Your task to perform on an android device: Show me popular videos on Youtube Image 0: 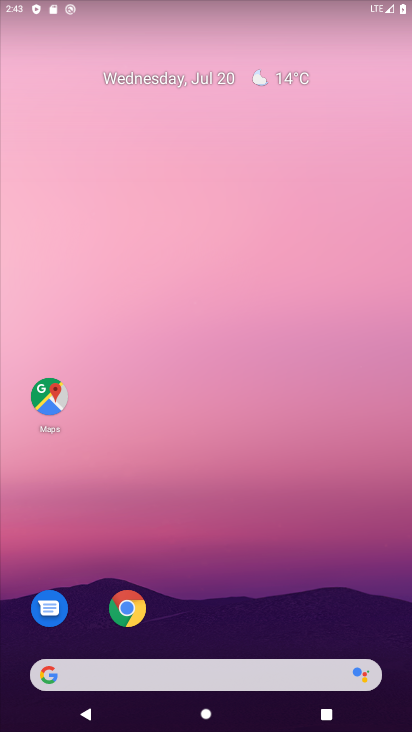
Step 0: drag from (222, 643) to (136, 115)
Your task to perform on an android device: Show me popular videos on Youtube Image 1: 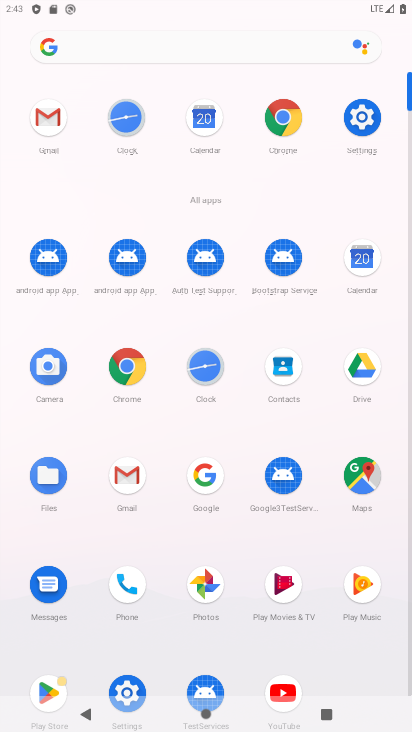
Step 1: click (275, 680)
Your task to perform on an android device: Show me popular videos on Youtube Image 2: 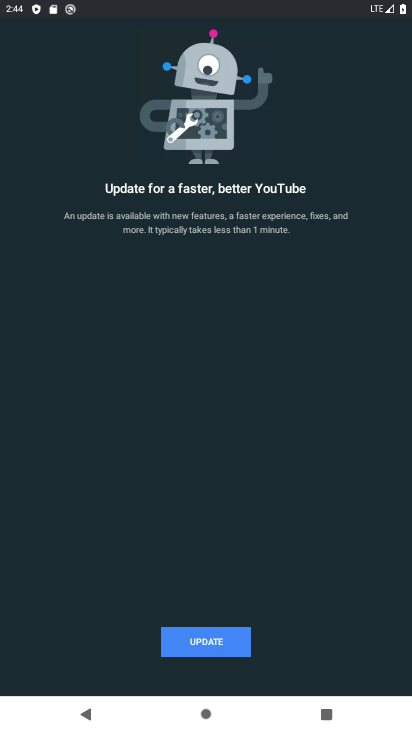
Step 2: click (176, 641)
Your task to perform on an android device: Show me popular videos on Youtube Image 3: 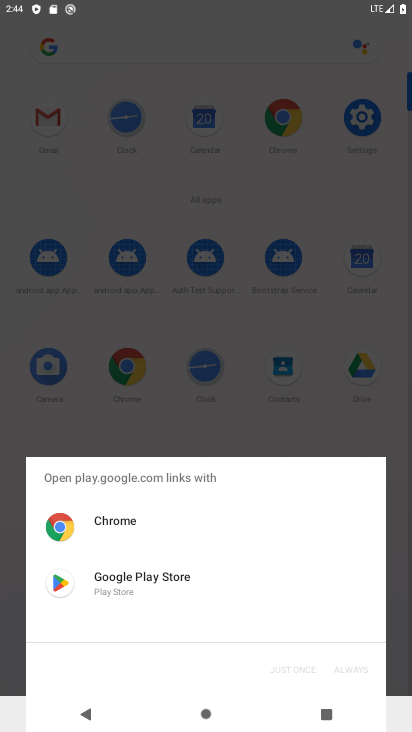
Step 3: click (132, 572)
Your task to perform on an android device: Show me popular videos on Youtube Image 4: 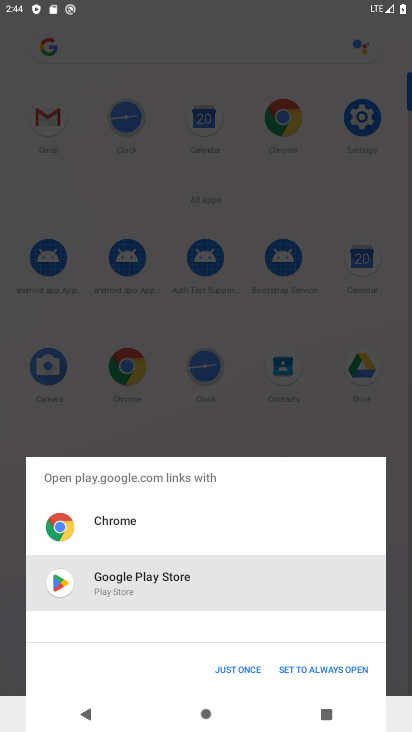
Step 4: click (215, 662)
Your task to perform on an android device: Show me popular videos on Youtube Image 5: 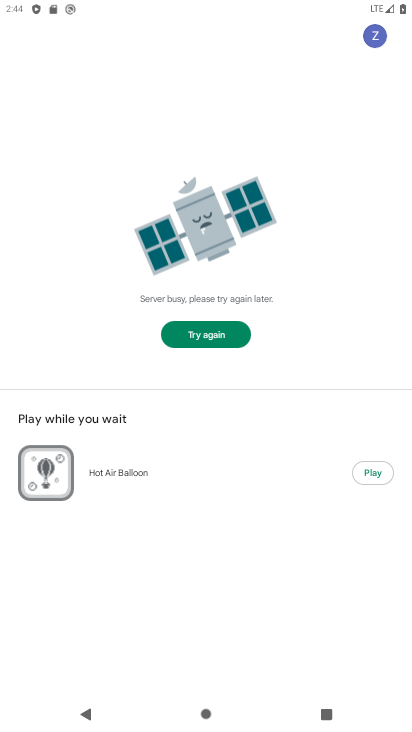
Step 5: task complete